Your task to perform on an android device: open a bookmark in the chrome app Image 0: 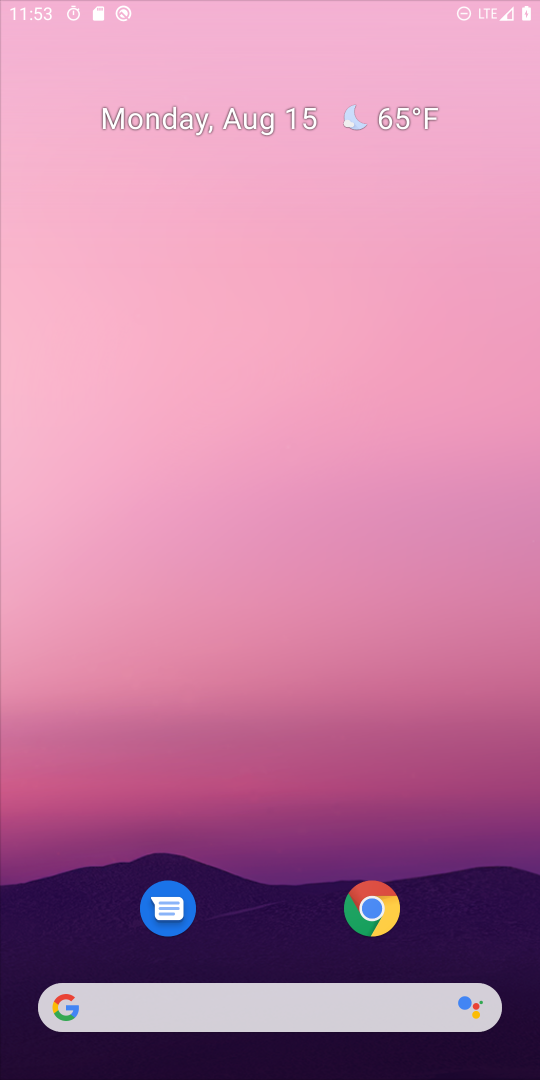
Step 0: drag from (274, 966) to (97, 61)
Your task to perform on an android device: open a bookmark in the chrome app Image 1: 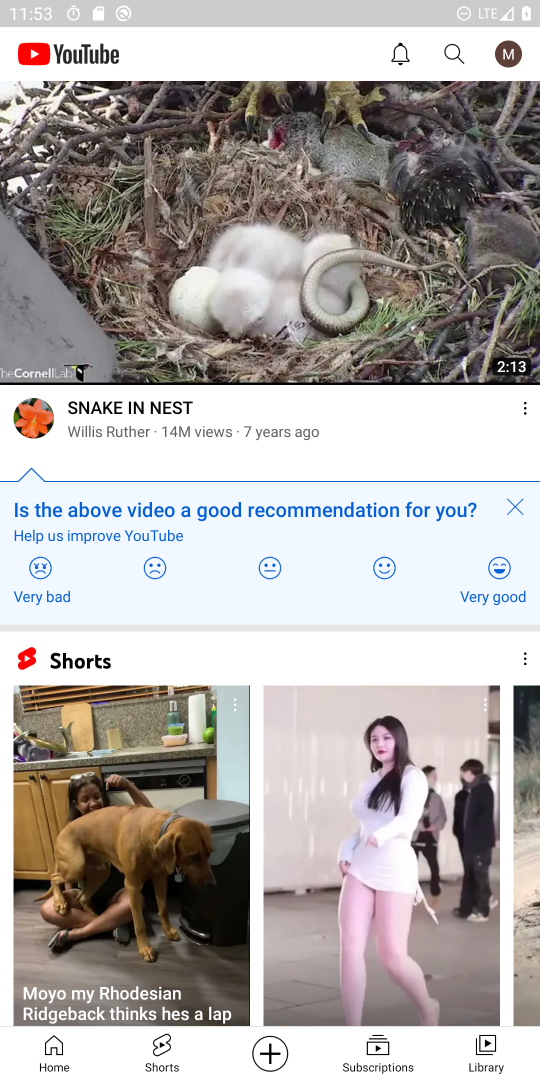
Step 1: press home button
Your task to perform on an android device: open a bookmark in the chrome app Image 2: 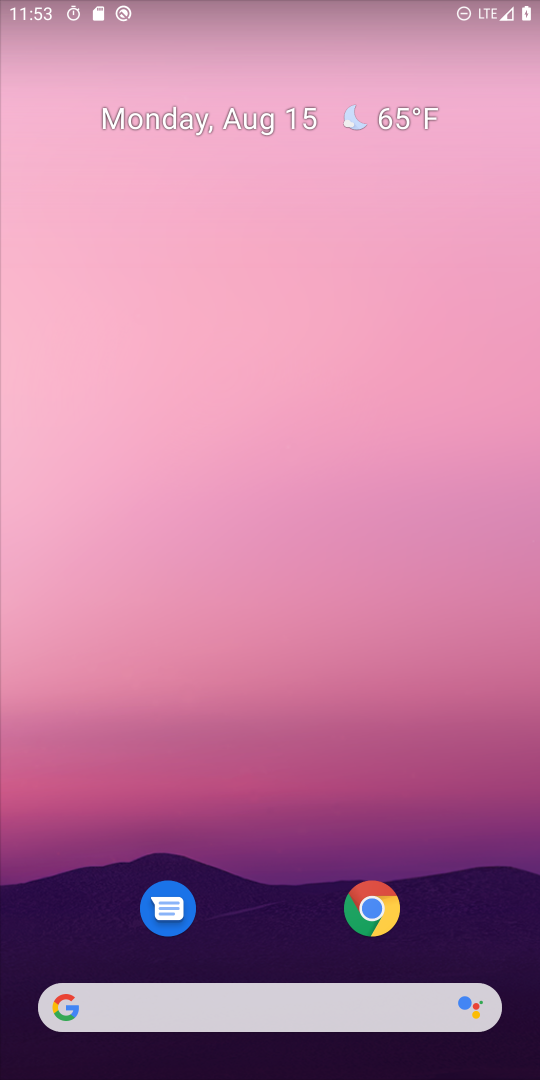
Step 2: click (366, 906)
Your task to perform on an android device: open a bookmark in the chrome app Image 3: 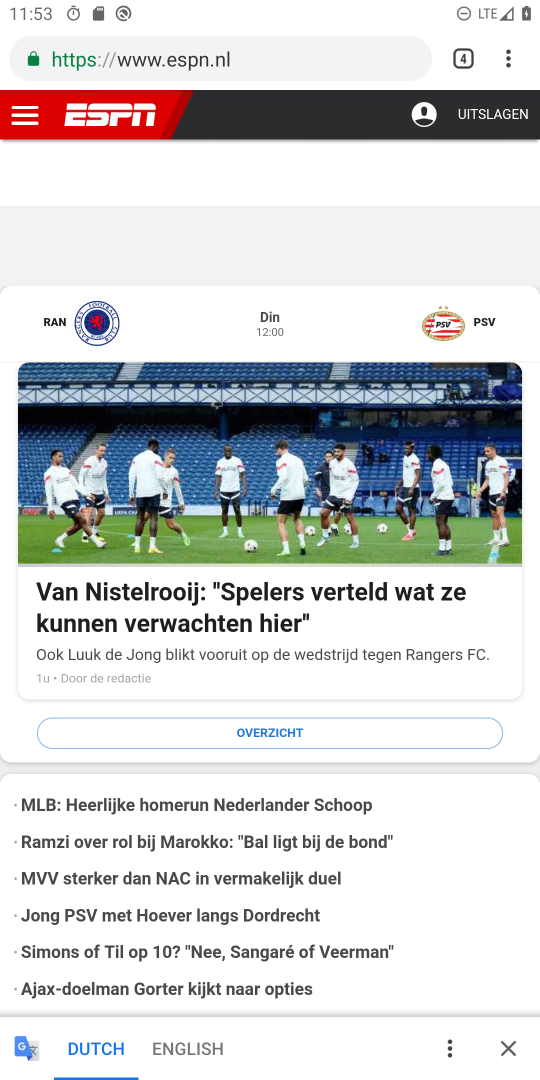
Step 3: click (519, 50)
Your task to perform on an android device: open a bookmark in the chrome app Image 4: 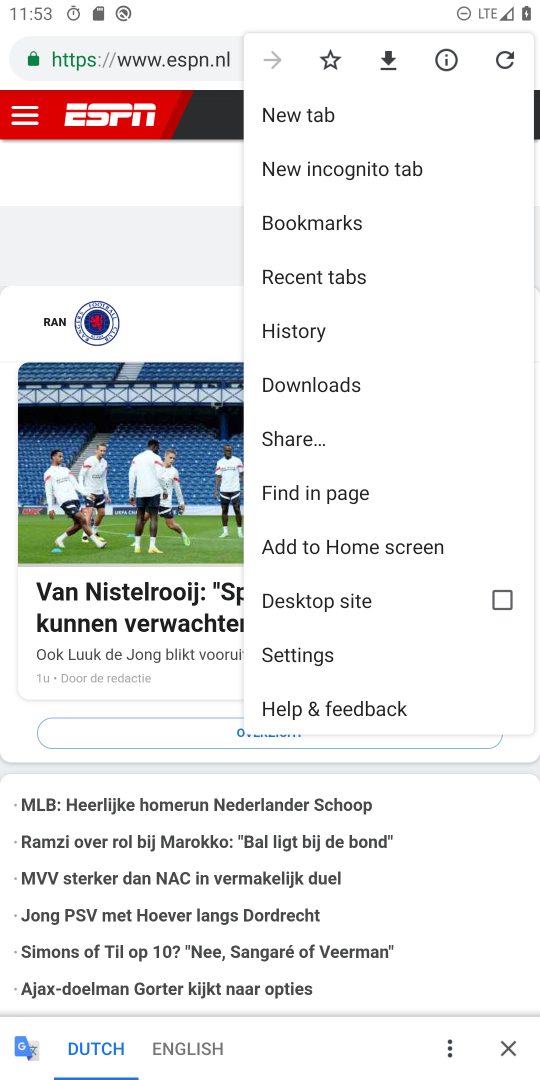
Step 4: click (282, 229)
Your task to perform on an android device: open a bookmark in the chrome app Image 5: 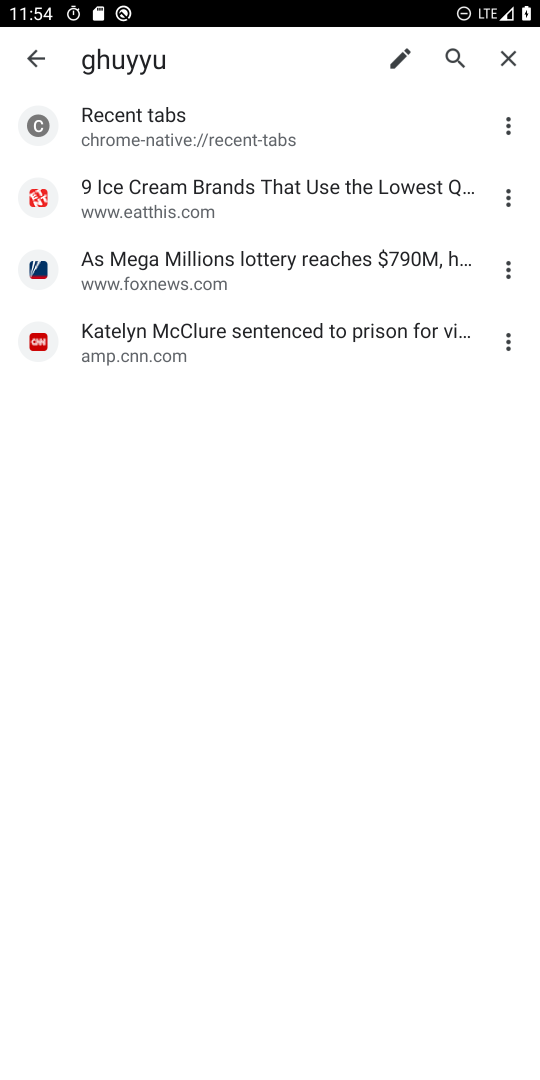
Step 5: click (157, 145)
Your task to perform on an android device: open a bookmark in the chrome app Image 6: 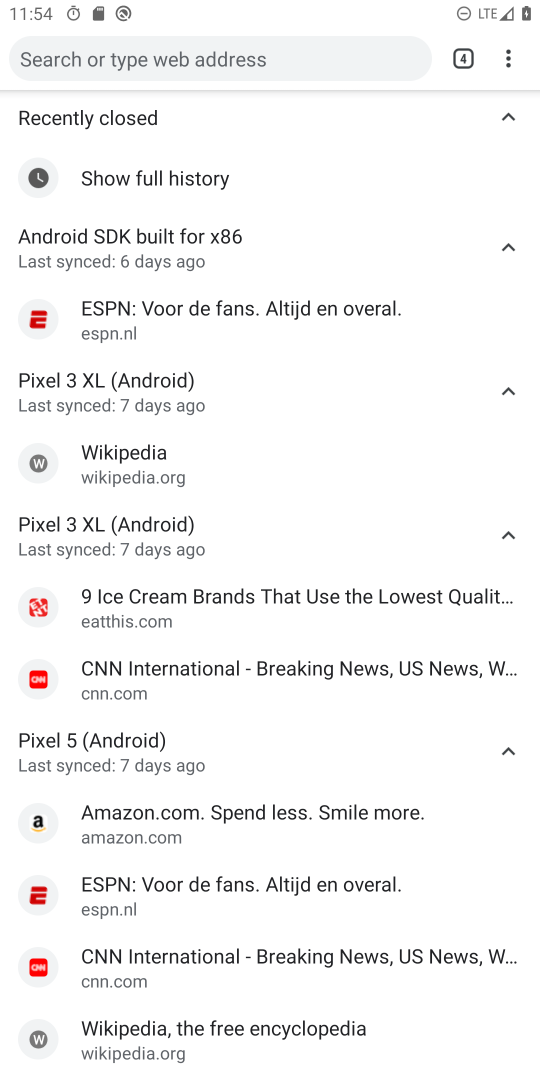
Step 6: task complete